Your task to perform on an android device: Clear all items from cart on walmart. Search for acer nitro on walmart, select the first entry, add it to the cart, then select checkout. Image 0: 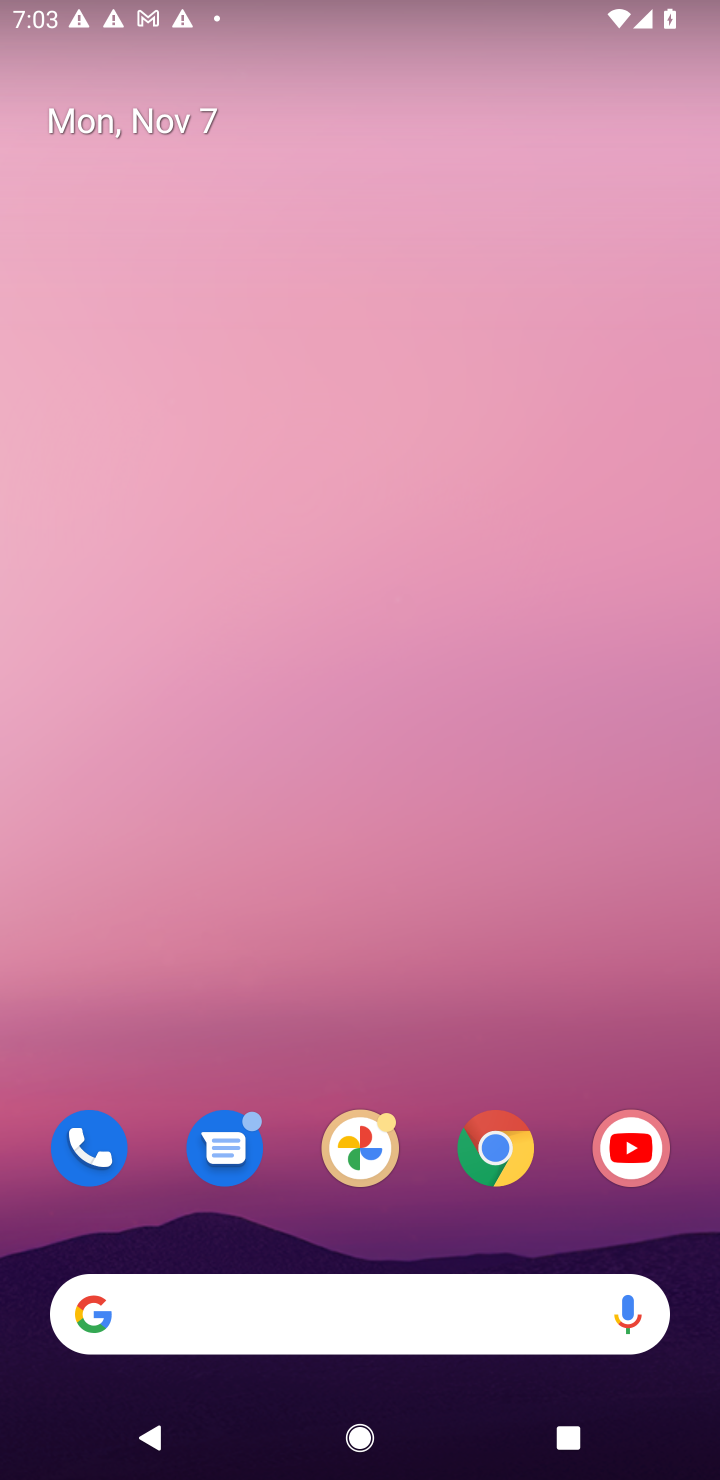
Step 0: click (504, 1142)
Your task to perform on an android device: Clear all items from cart on walmart. Search for acer nitro on walmart, select the first entry, add it to the cart, then select checkout. Image 1: 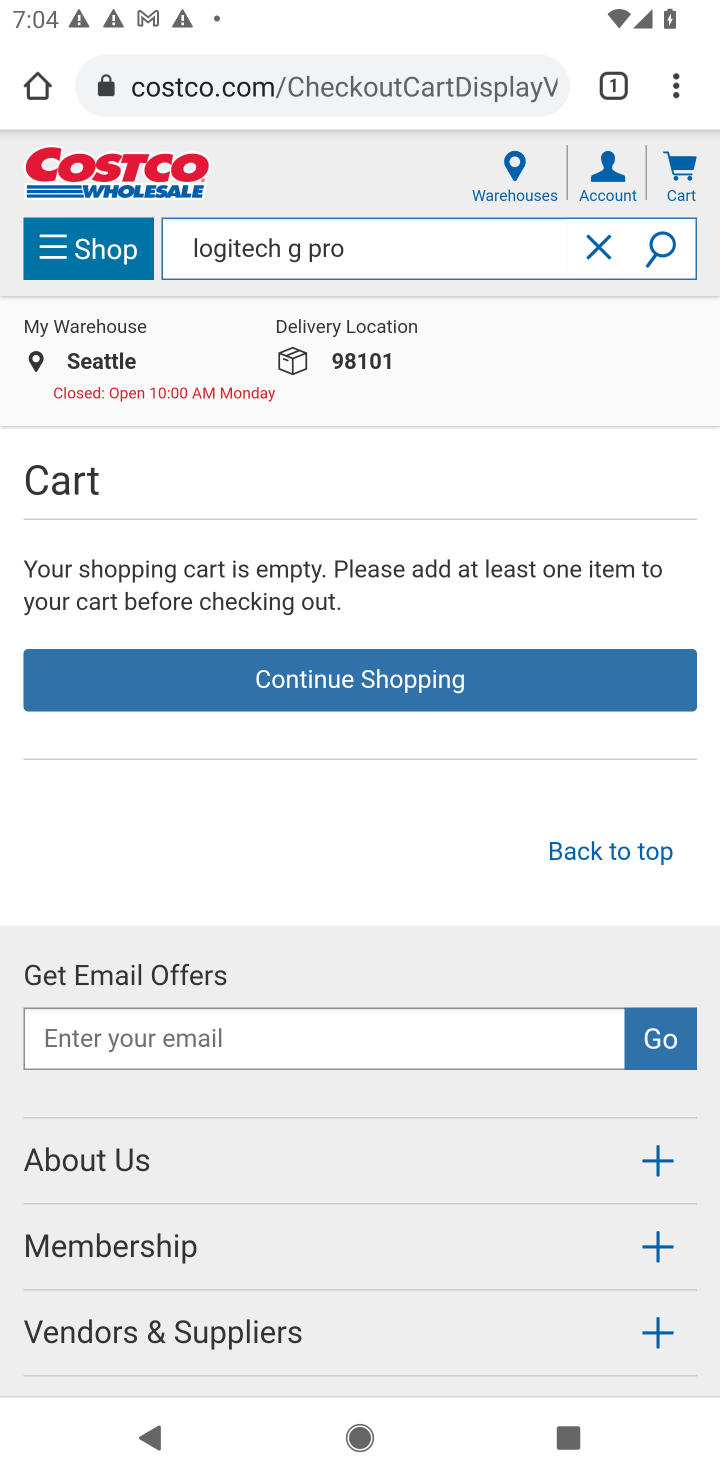
Step 1: click (465, 70)
Your task to perform on an android device: Clear all items from cart on walmart. Search for acer nitro on walmart, select the first entry, add it to the cart, then select checkout. Image 2: 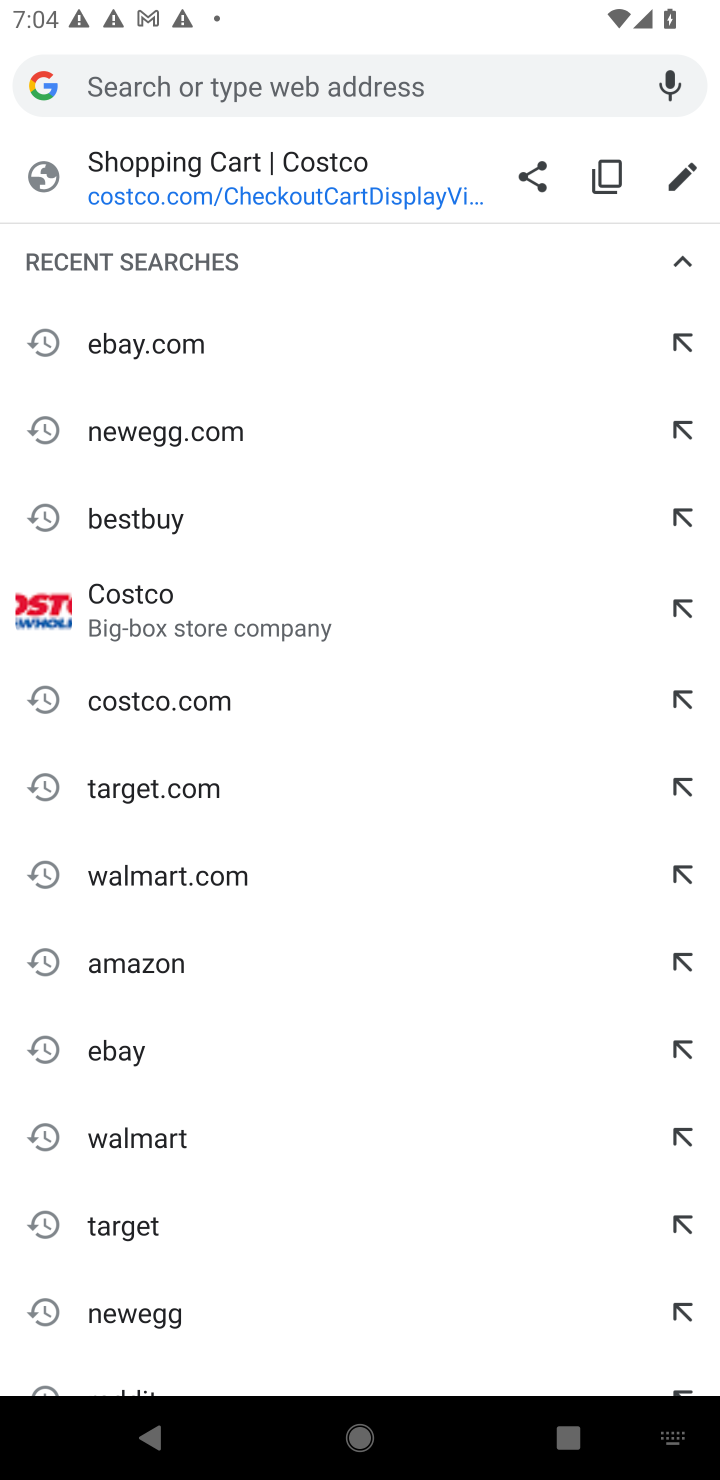
Step 2: type "walmart"
Your task to perform on an android device: Clear all items from cart on walmart. Search for acer nitro on walmart, select the first entry, add it to the cart, then select checkout. Image 3: 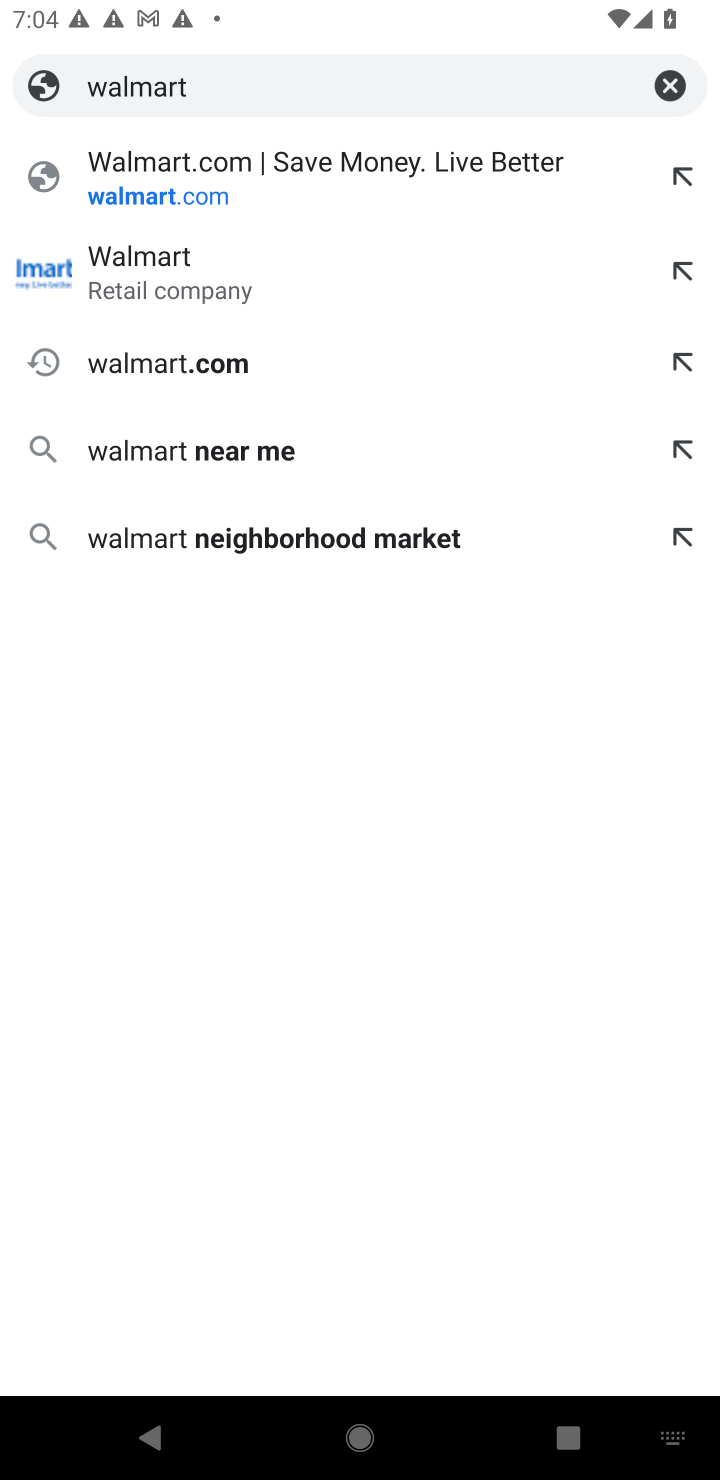
Step 3: click (221, 364)
Your task to perform on an android device: Clear all items from cart on walmart. Search for acer nitro on walmart, select the first entry, add it to the cart, then select checkout. Image 4: 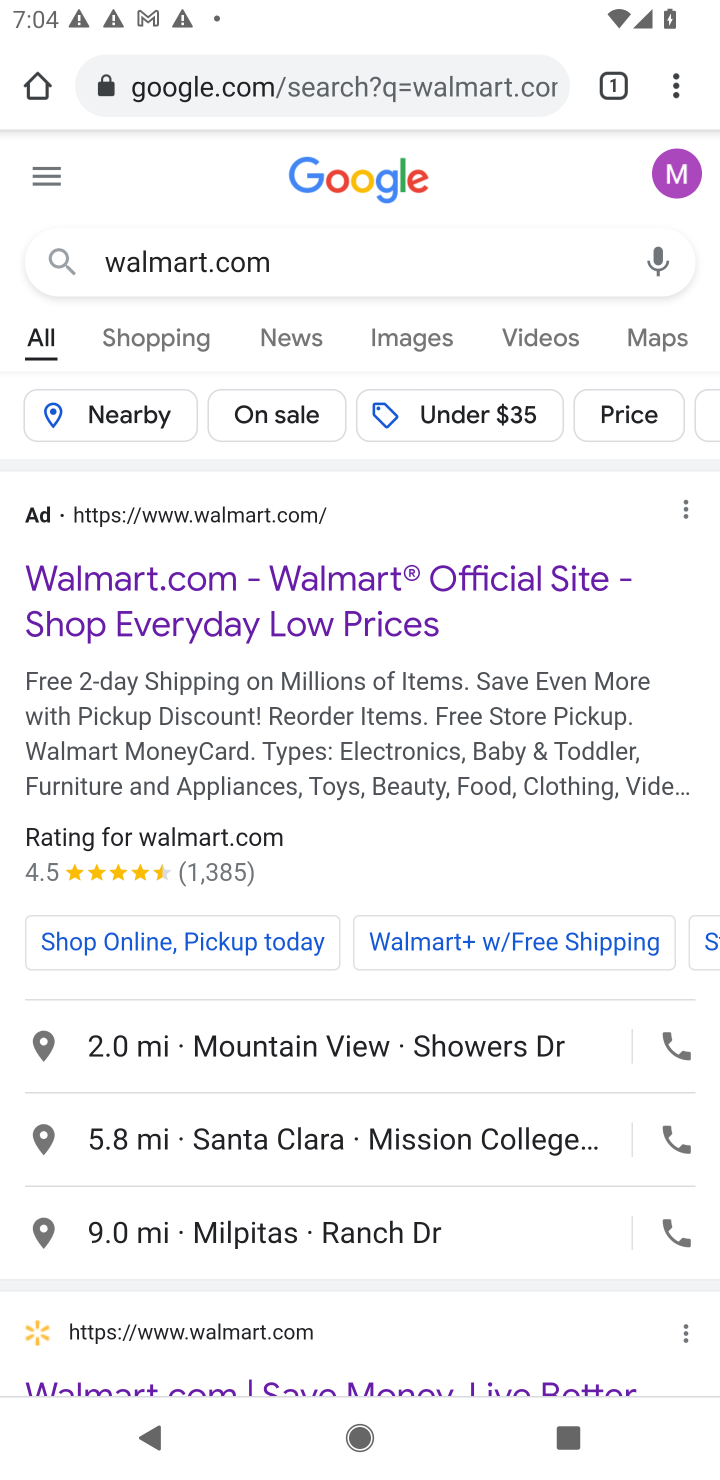
Step 4: click (254, 525)
Your task to perform on an android device: Clear all items from cart on walmart. Search for acer nitro on walmart, select the first entry, add it to the cart, then select checkout. Image 5: 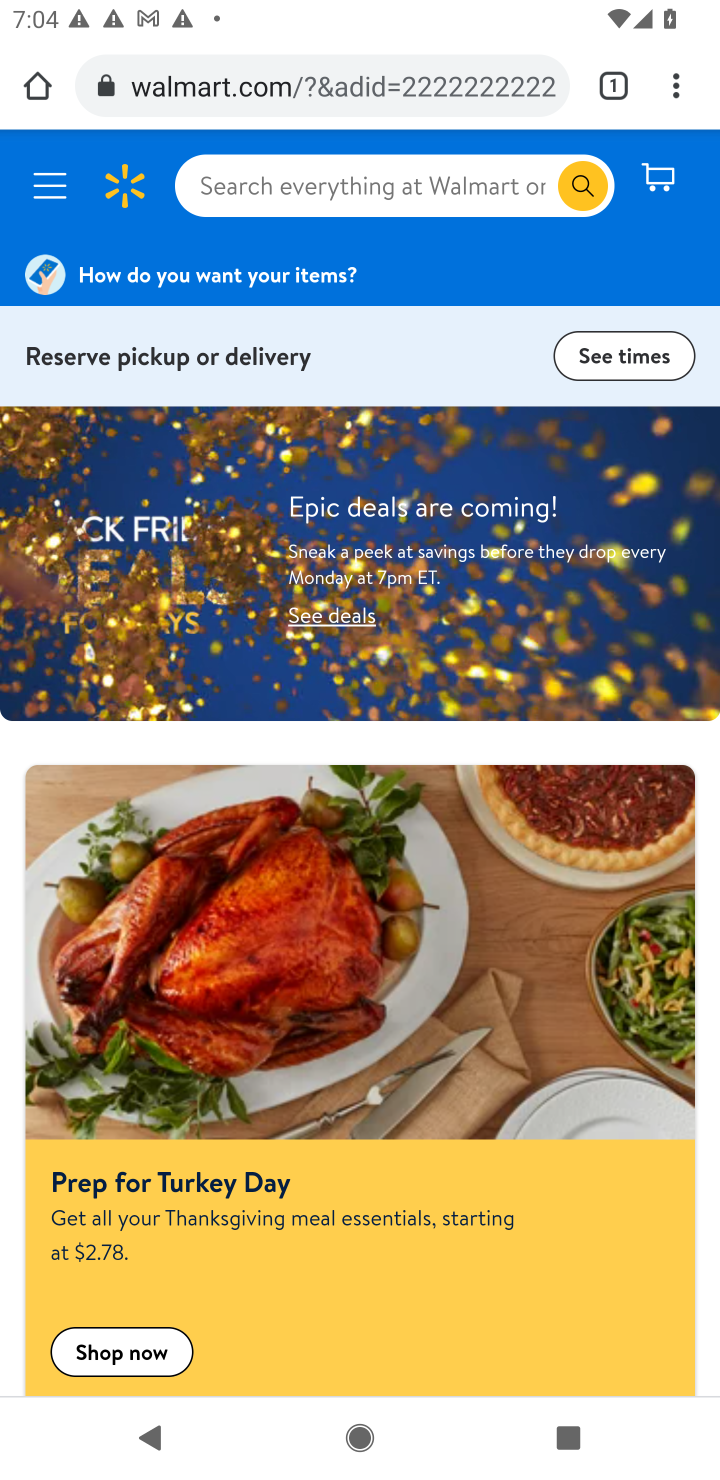
Step 5: click (654, 177)
Your task to perform on an android device: Clear all items from cart on walmart. Search for acer nitro on walmart, select the first entry, add it to the cart, then select checkout. Image 6: 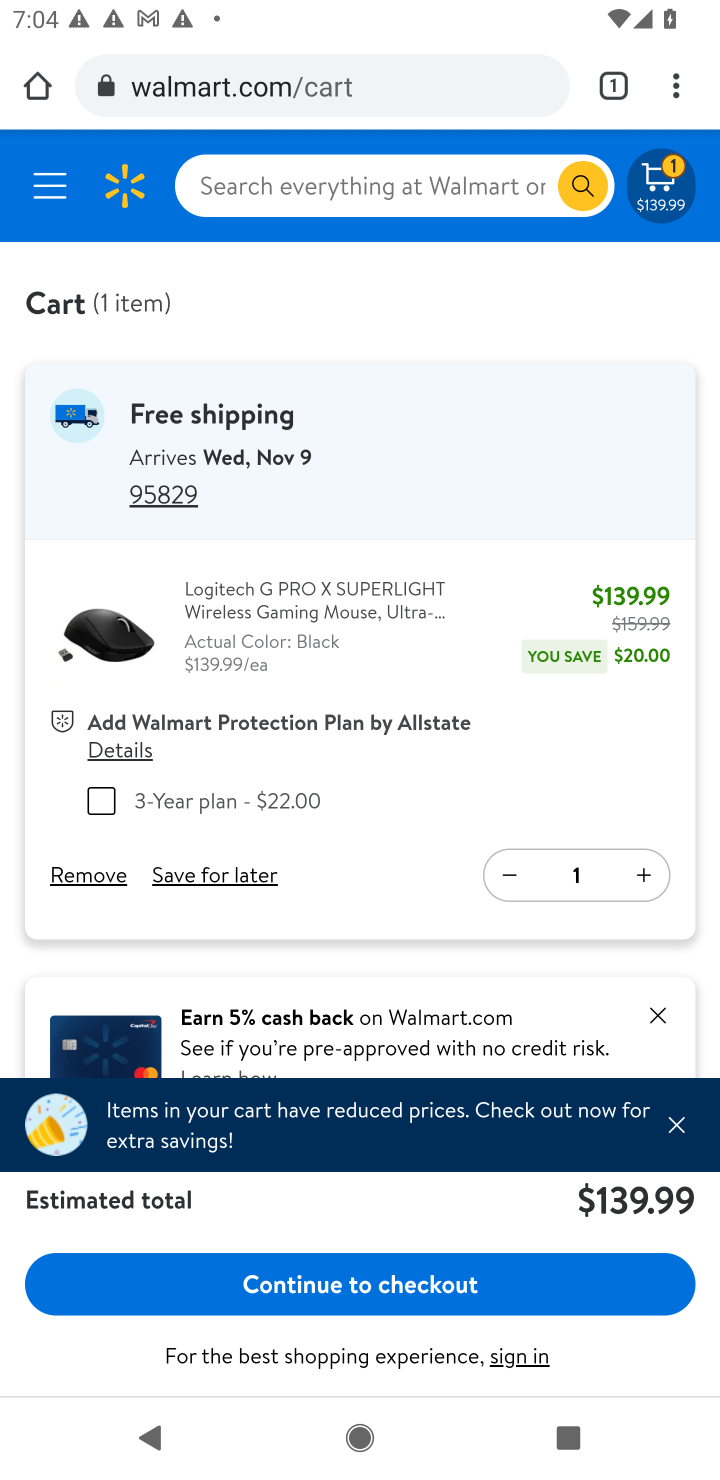
Step 6: click (73, 874)
Your task to perform on an android device: Clear all items from cart on walmart. Search for acer nitro on walmart, select the first entry, add it to the cart, then select checkout. Image 7: 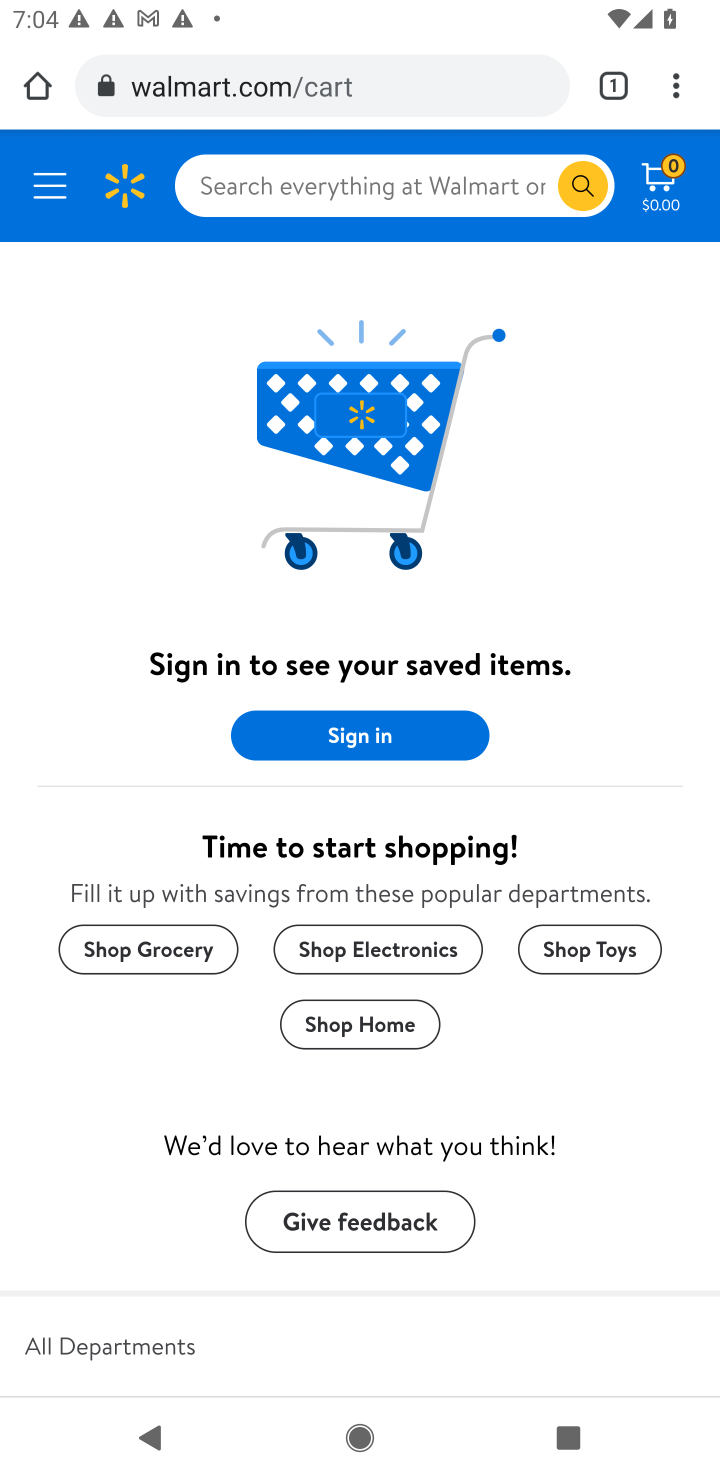
Step 7: click (432, 180)
Your task to perform on an android device: Clear all items from cart on walmart. Search for acer nitro on walmart, select the first entry, add it to the cart, then select checkout. Image 8: 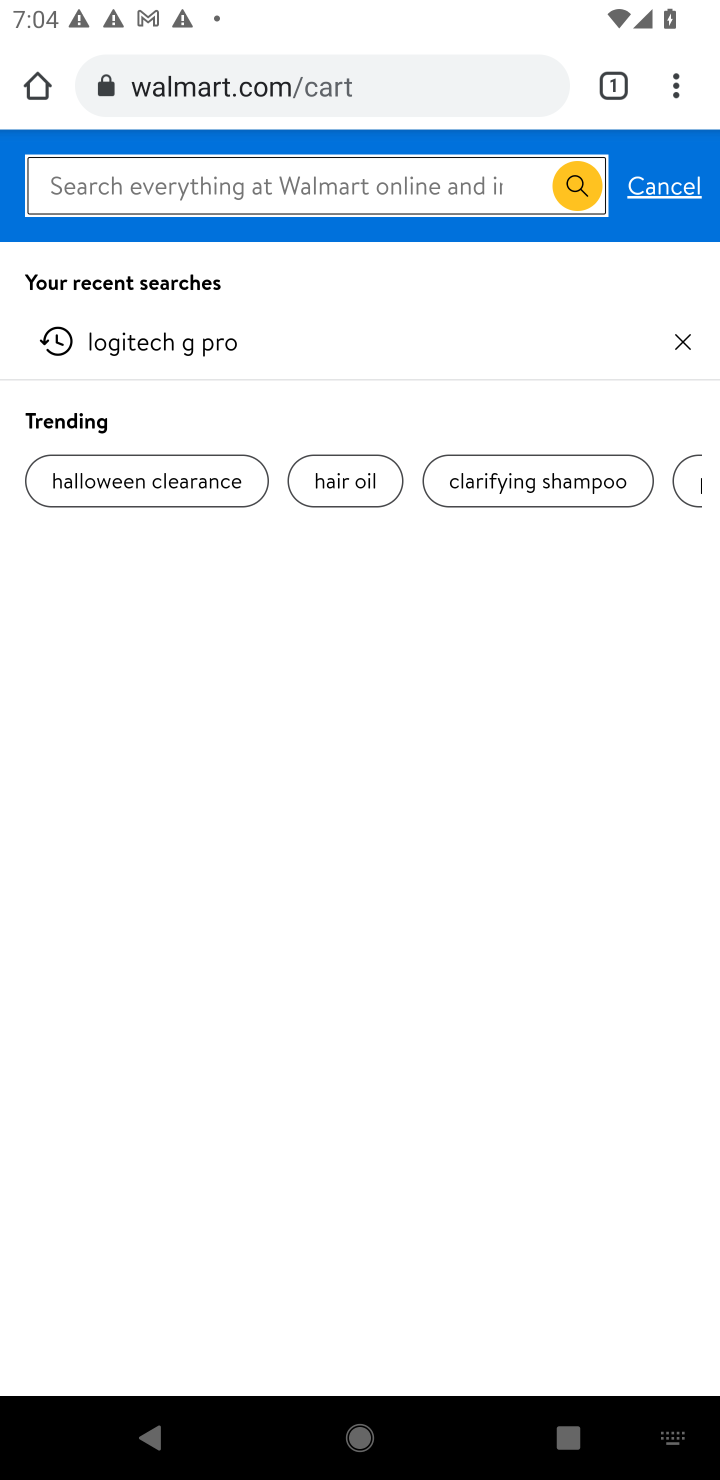
Step 8: type "acer nitro"
Your task to perform on an android device: Clear all items from cart on walmart. Search for acer nitro on walmart, select the first entry, add it to the cart, then select checkout. Image 9: 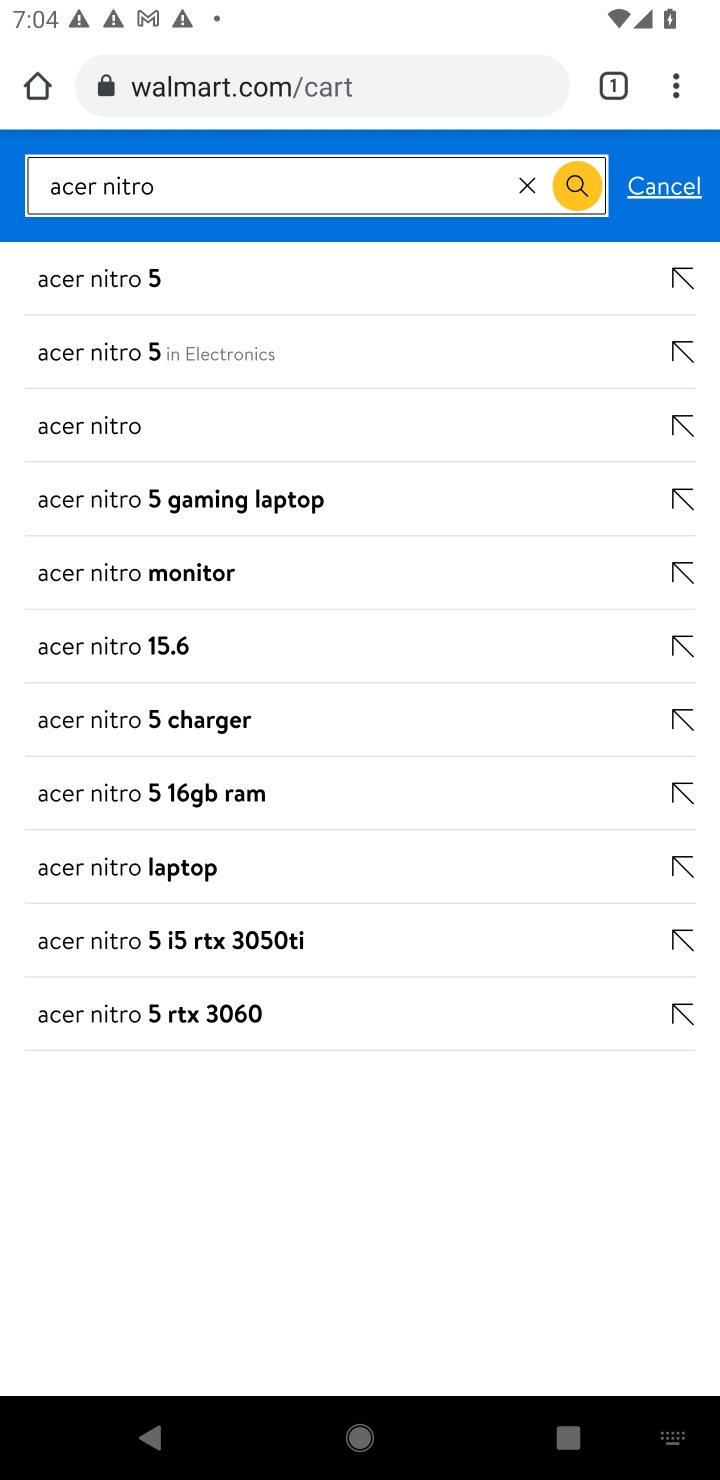
Step 9: click (117, 430)
Your task to perform on an android device: Clear all items from cart on walmart. Search for acer nitro on walmart, select the first entry, add it to the cart, then select checkout. Image 10: 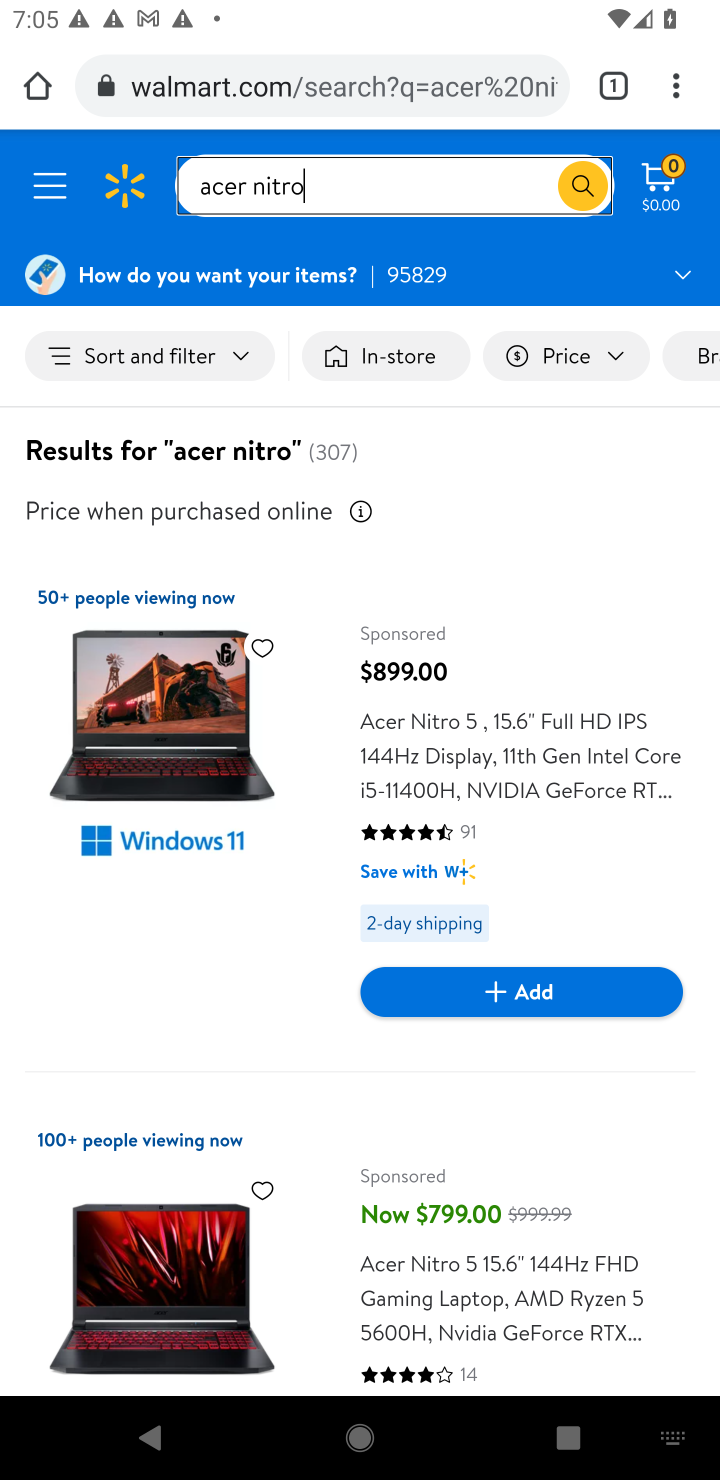
Step 10: click (140, 739)
Your task to perform on an android device: Clear all items from cart on walmart. Search for acer nitro on walmart, select the first entry, add it to the cart, then select checkout. Image 11: 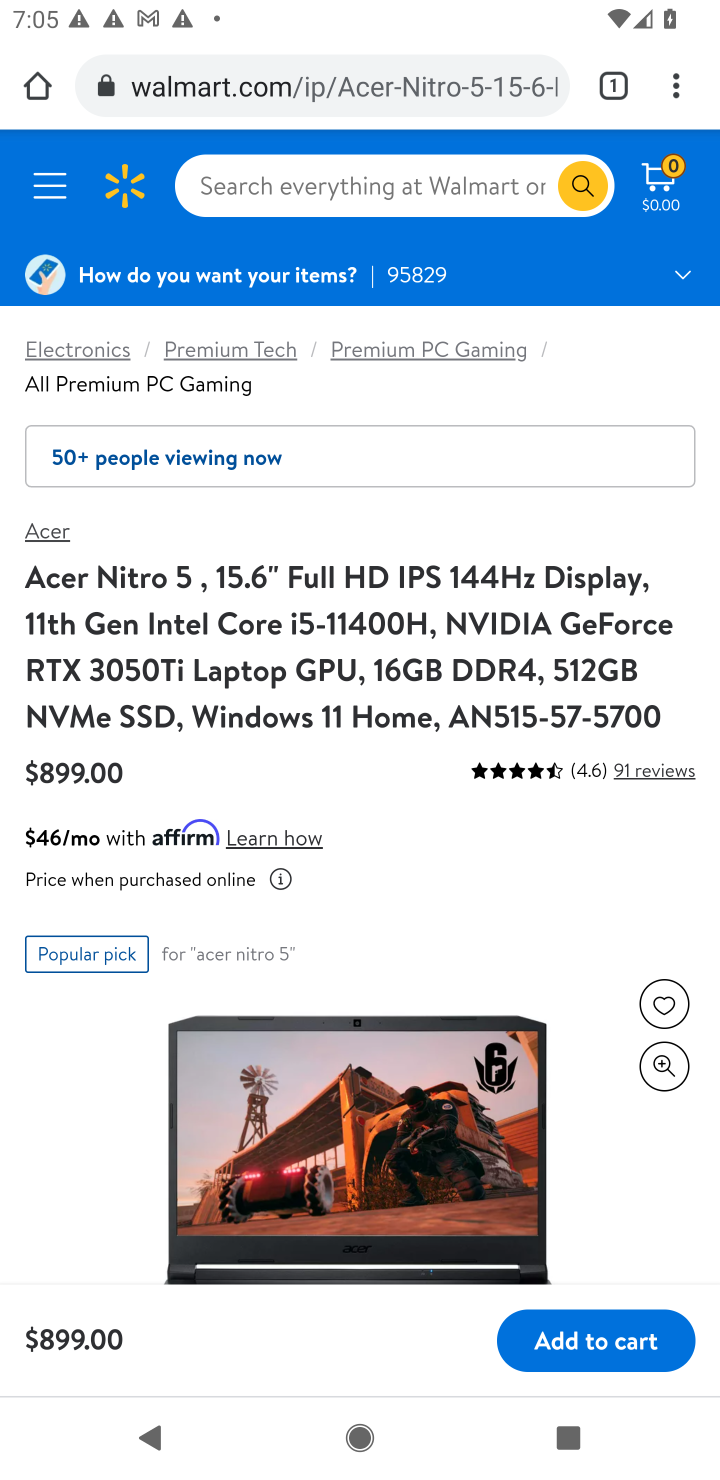
Step 11: click (602, 1350)
Your task to perform on an android device: Clear all items from cart on walmart. Search for acer nitro on walmart, select the first entry, add it to the cart, then select checkout. Image 12: 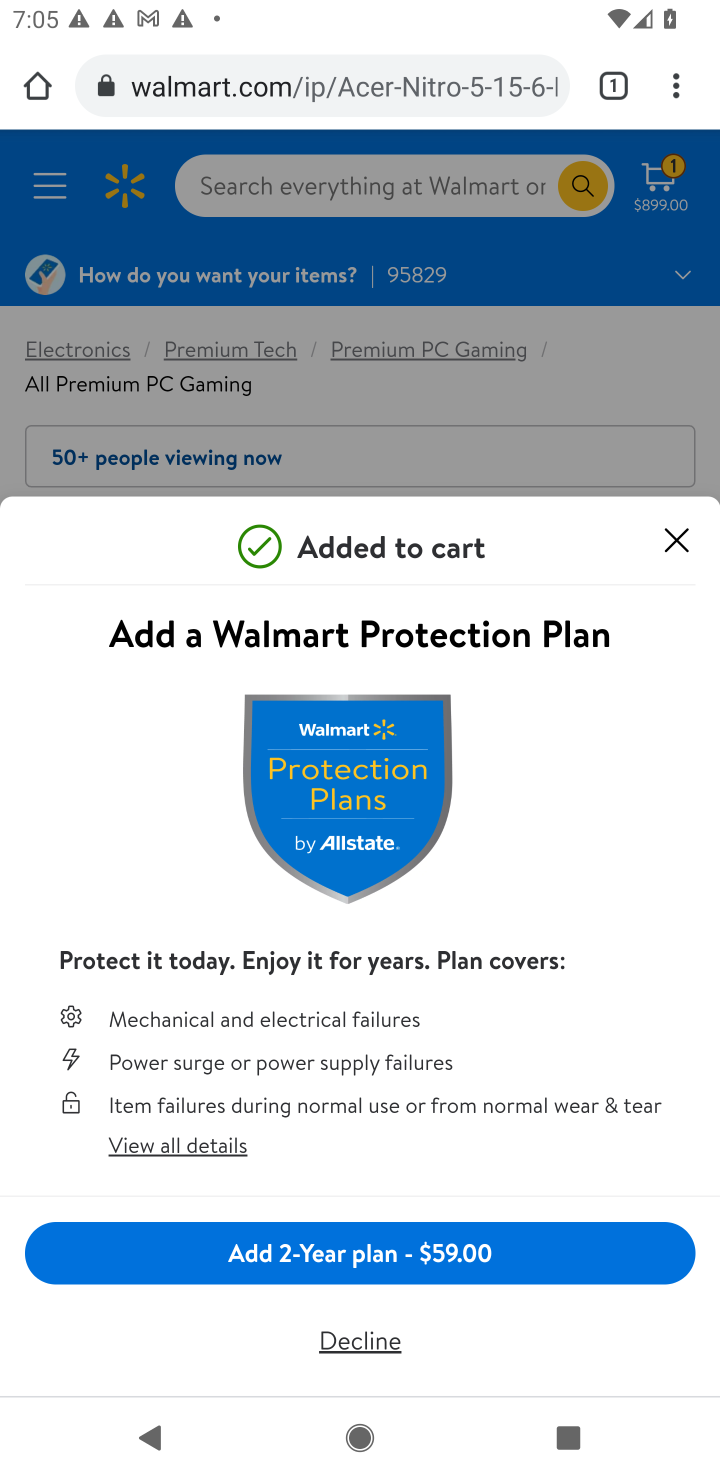
Step 12: click (676, 531)
Your task to perform on an android device: Clear all items from cart on walmart. Search for acer nitro on walmart, select the first entry, add it to the cart, then select checkout. Image 13: 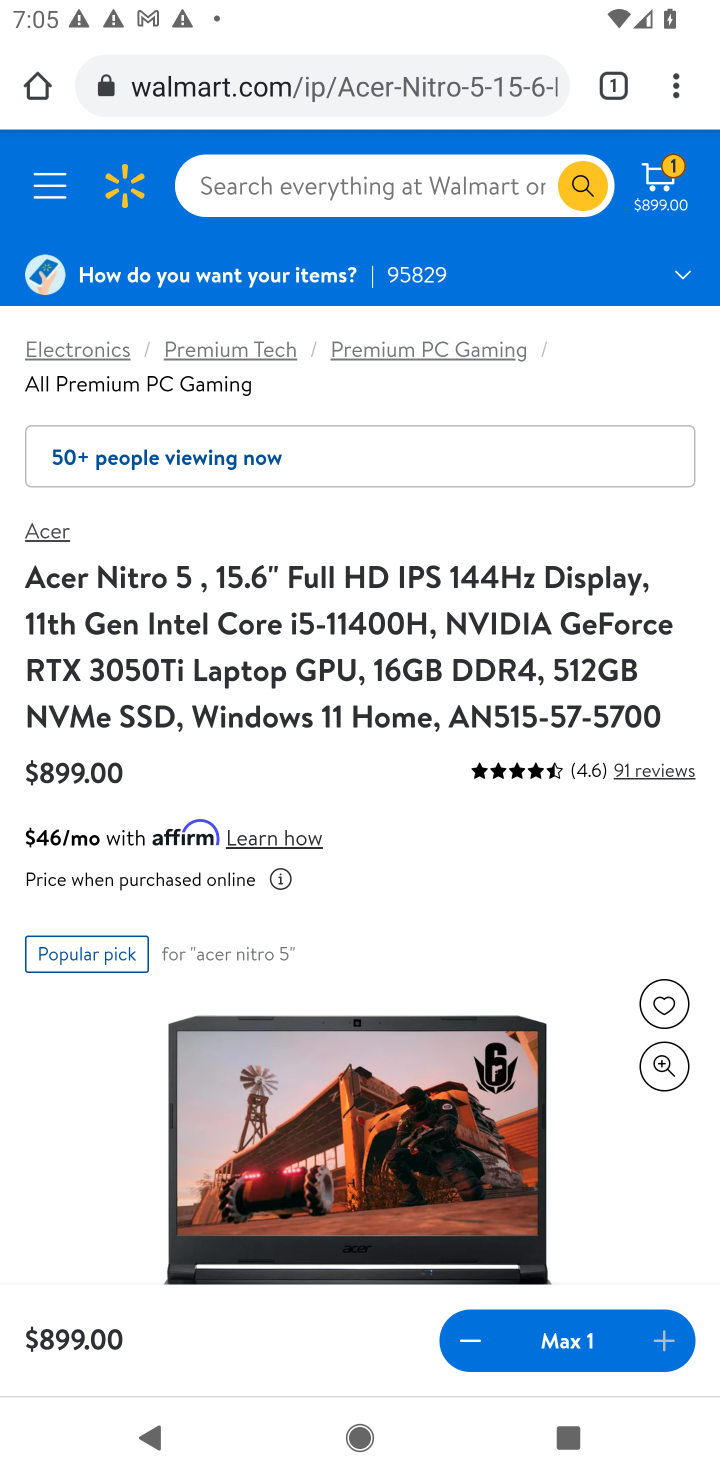
Step 13: click (664, 194)
Your task to perform on an android device: Clear all items from cart on walmart. Search for acer nitro on walmart, select the first entry, add it to the cart, then select checkout. Image 14: 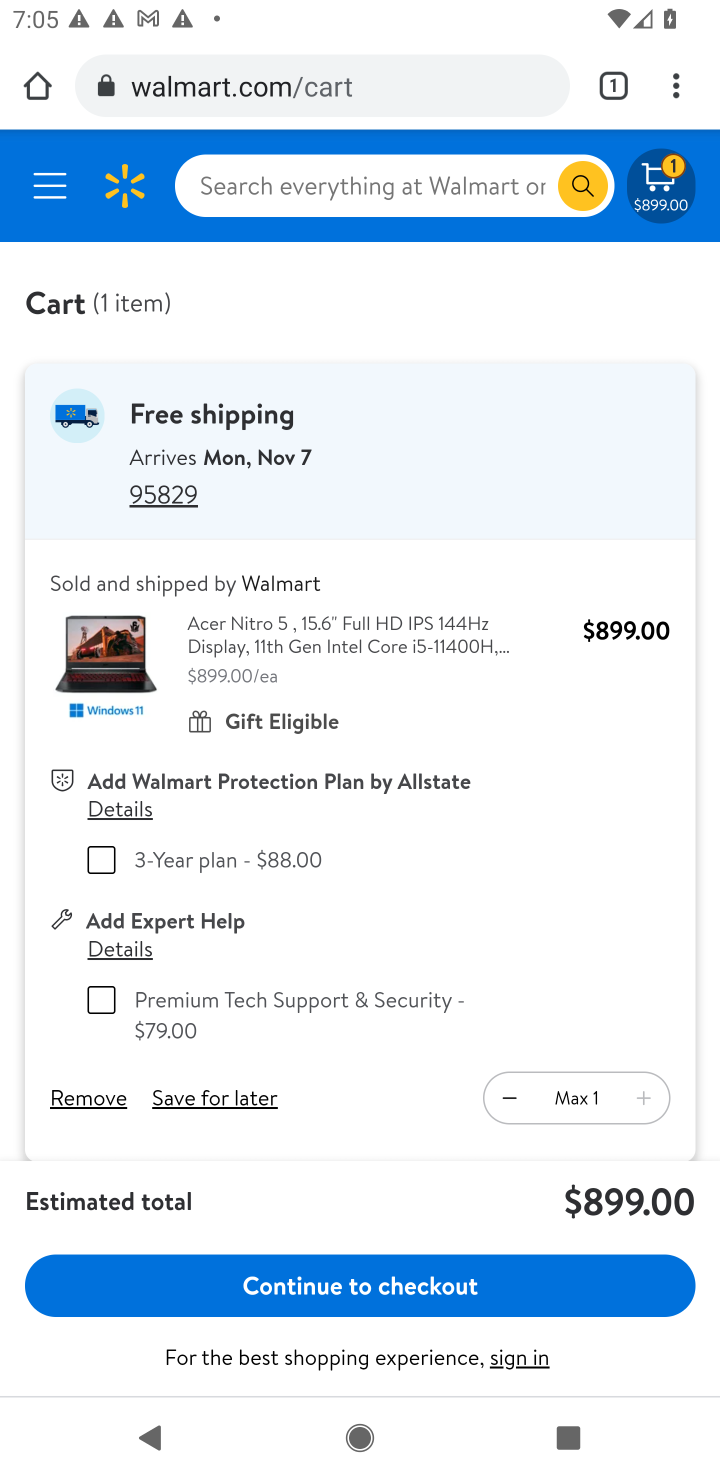
Step 14: click (421, 1273)
Your task to perform on an android device: Clear all items from cart on walmart. Search for acer nitro on walmart, select the first entry, add it to the cart, then select checkout. Image 15: 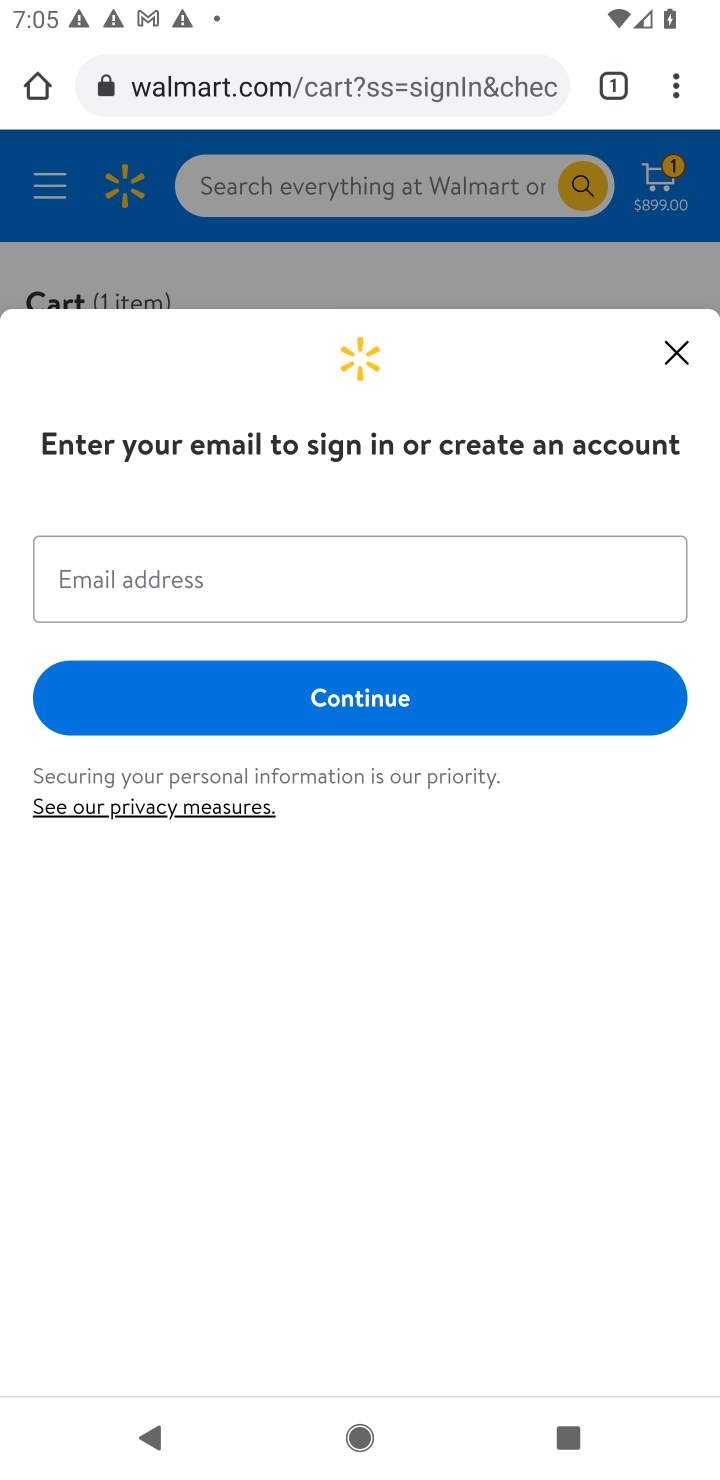
Step 15: task complete